Your task to perform on an android device: visit the assistant section in the google photos Image 0: 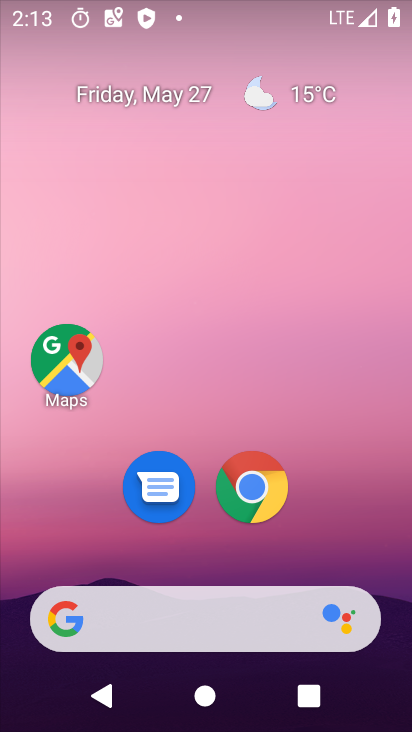
Step 0: drag from (318, 522) to (320, 118)
Your task to perform on an android device: visit the assistant section in the google photos Image 1: 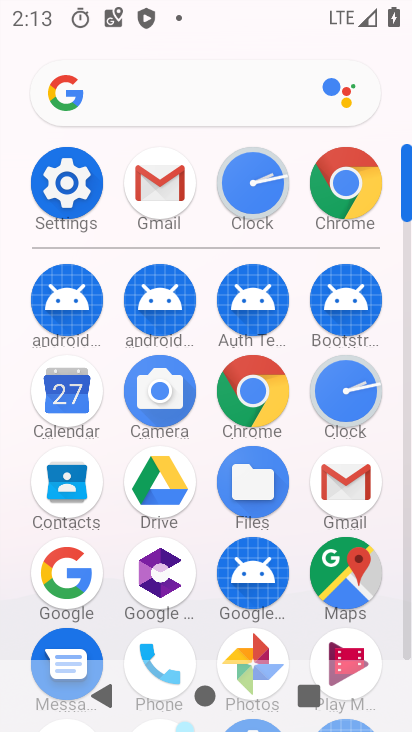
Step 1: click (261, 657)
Your task to perform on an android device: visit the assistant section in the google photos Image 2: 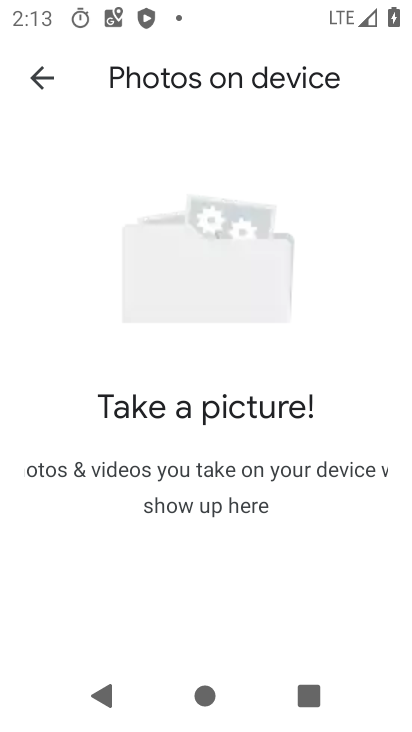
Step 2: click (46, 80)
Your task to perform on an android device: visit the assistant section in the google photos Image 3: 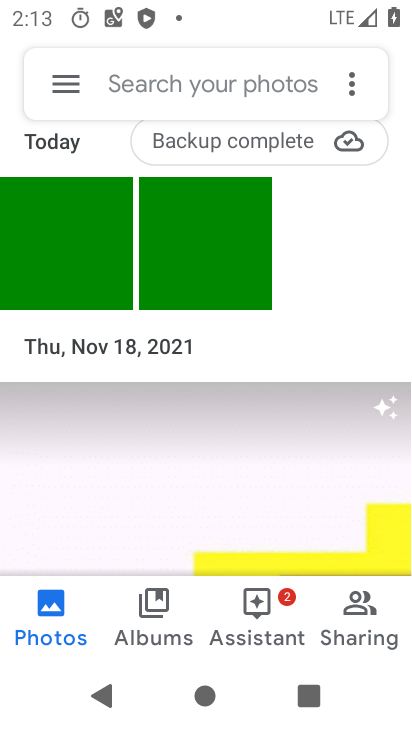
Step 3: click (271, 622)
Your task to perform on an android device: visit the assistant section in the google photos Image 4: 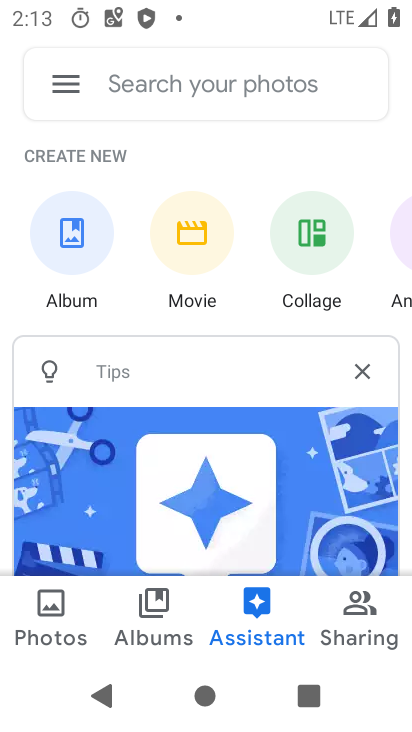
Step 4: task complete